Your task to perform on an android device: Open Youtube and go to "Your channel" Image 0: 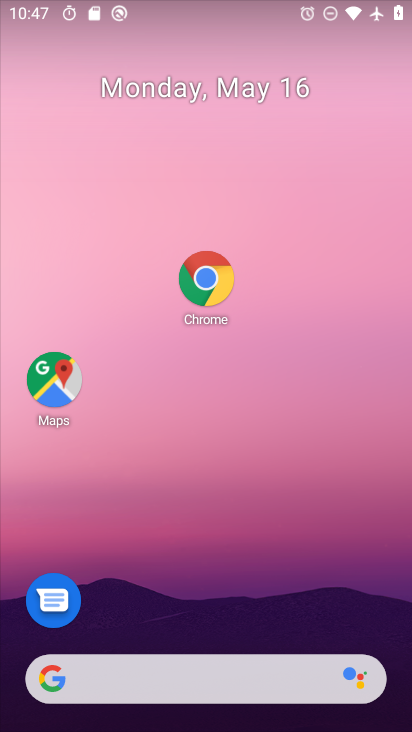
Step 0: drag from (191, 677) to (274, 89)
Your task to perform on an android device: Open Youtube and go to "Your channel" Image 1: 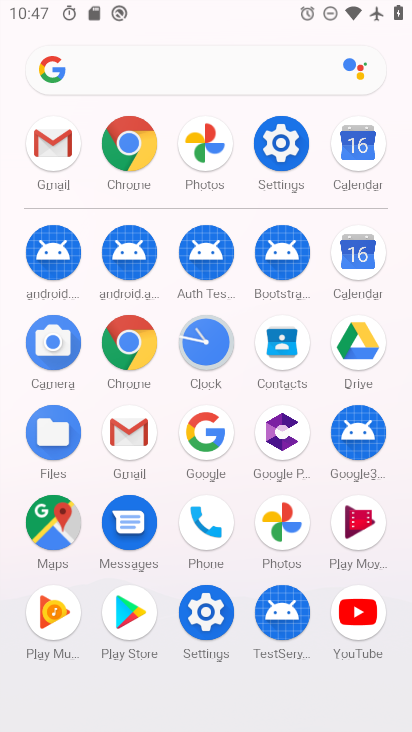
Step 1: click (363, 613)
Your task to perform on an android device: Open Youtube and go to "Your channel" Image 2: 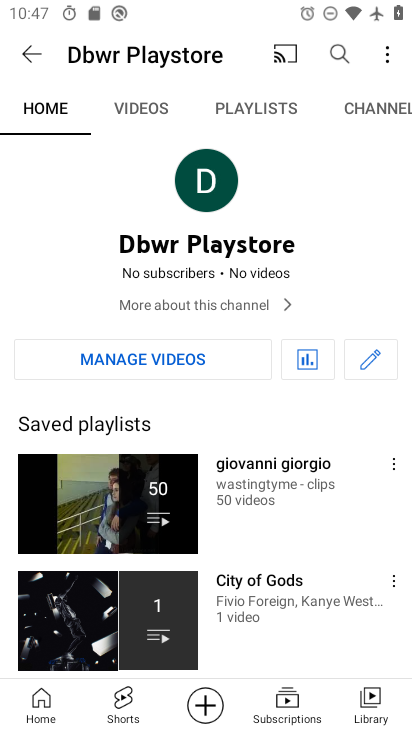
Step 2: task complete